Your task to perform on an android device: Open the stopwatch Image 0: 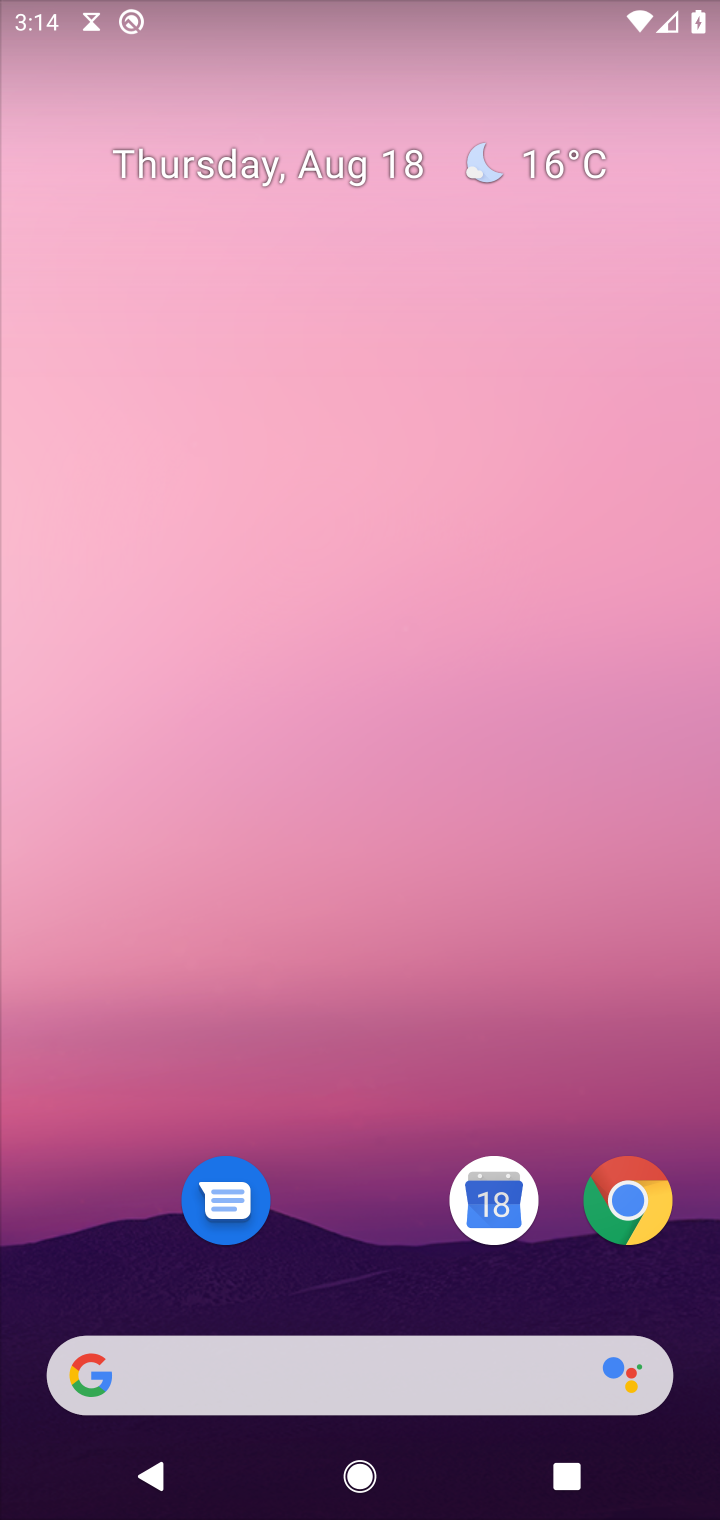
Step 0: drag from (377, 1256) to (462, 33)
Your task to perform on an android device: Open the stopwatch Image 1: 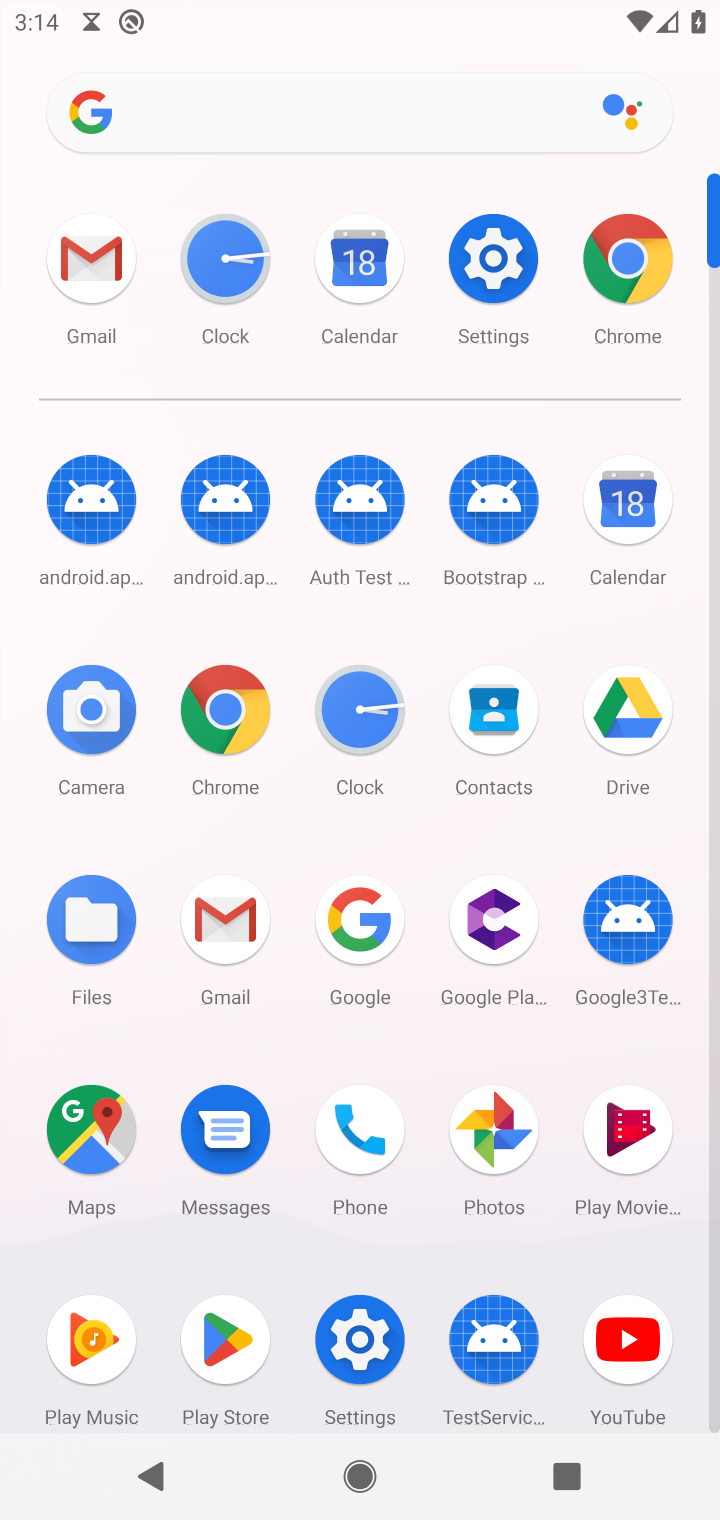
Step 1: click (241, 260)
Your task to perform on an android device: Open the stopwatch Image 2: 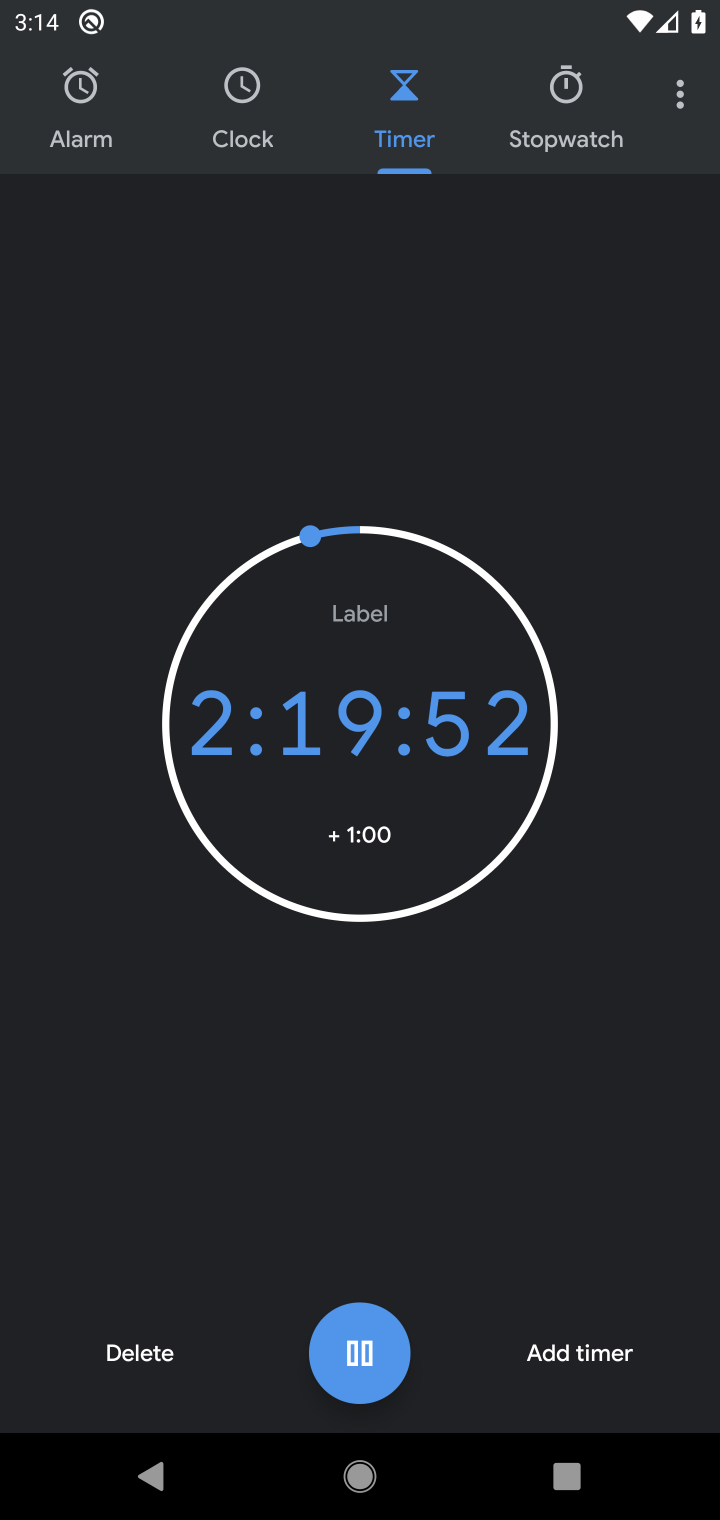
Step 2: click (569, 76)
Your task to perform on an android device: Open the stopwatch Image 3: 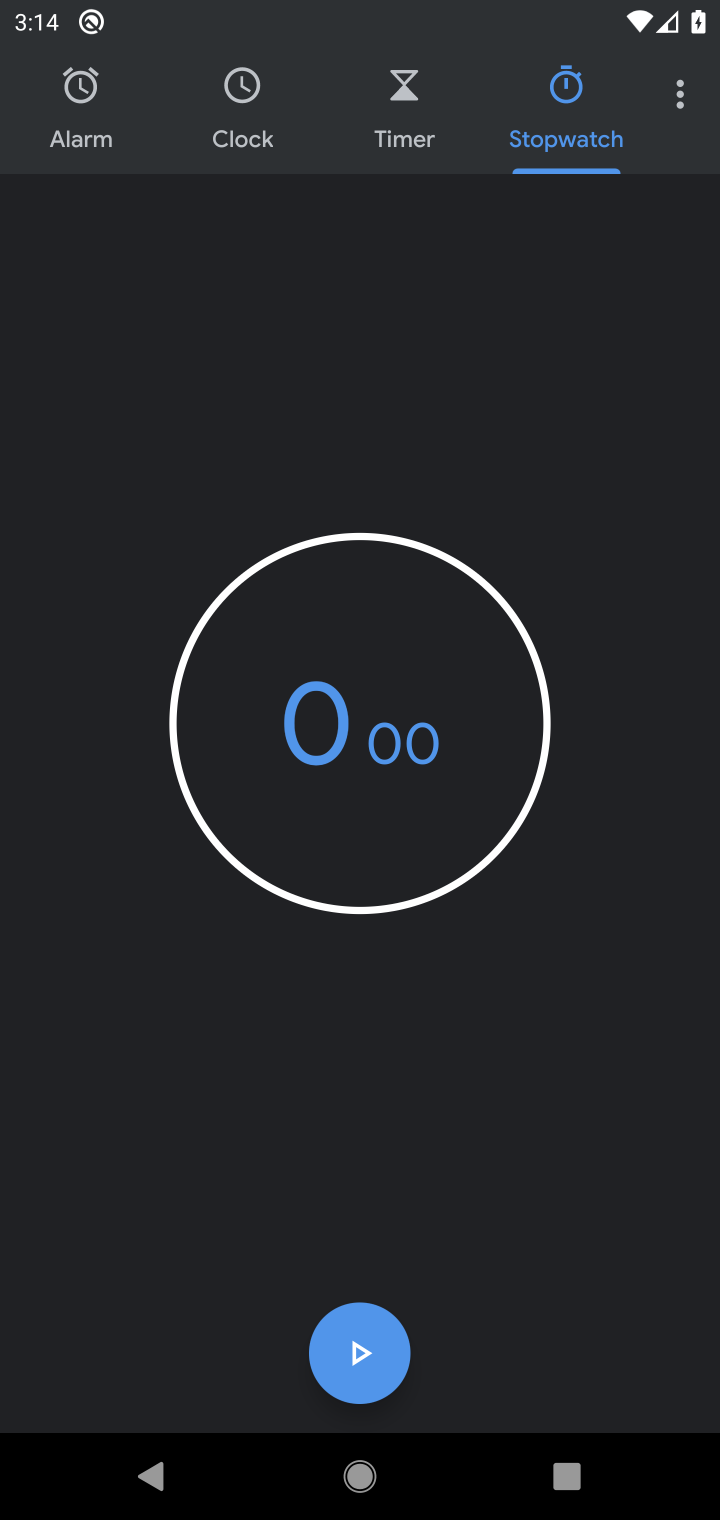
Step 3: task complete